Your task to perform on an android device: open wifi settings Image 0: 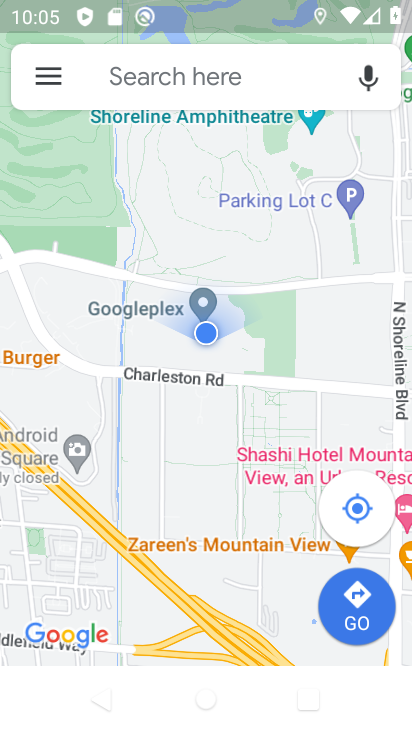
Step 0: press home button
Your task to perform on an android device: open wifi settings Image 1: 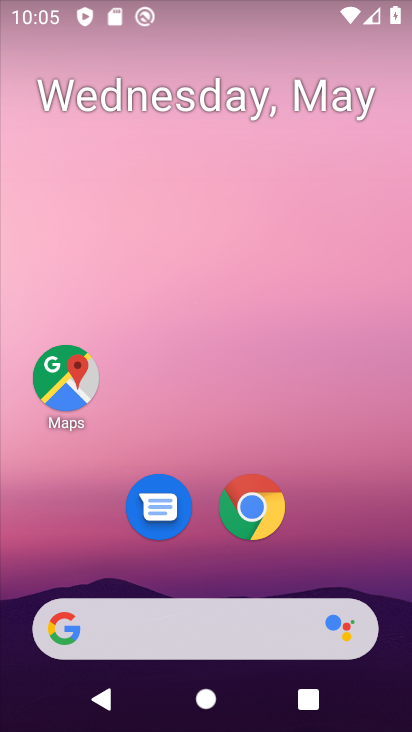
Step 1: drag from (208, 573) to (255, 59)
Your task to perform on an android device: open wifi settings Image 2: 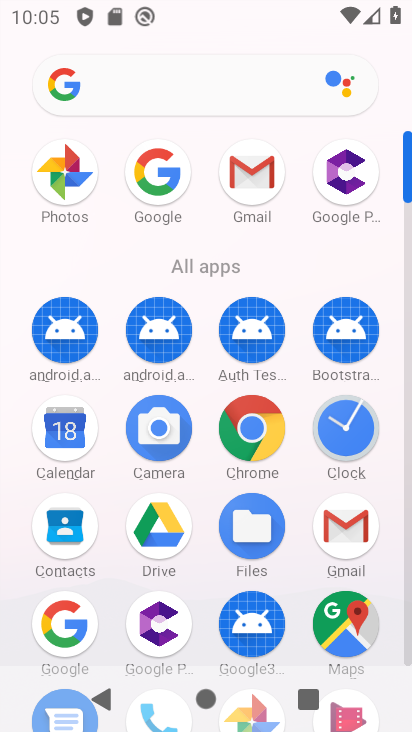
Step 2: drag from (203, 587) to (266, 56)
Your task to perform on an android device: open wifi settings Image 3: 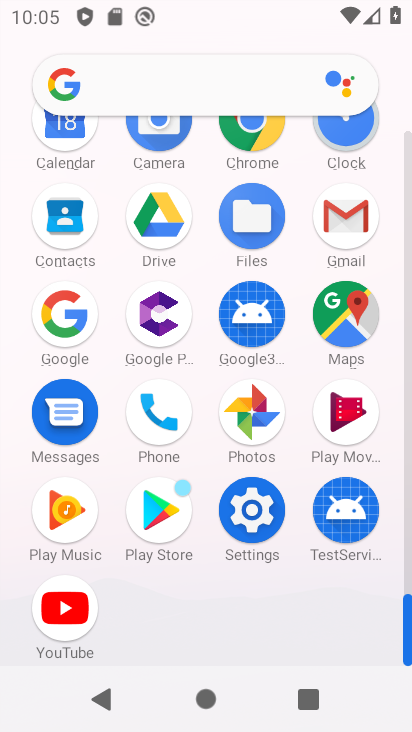
Step 3: click (253, 507)
Your task to perform on an android device: open wifi settings Image 4: 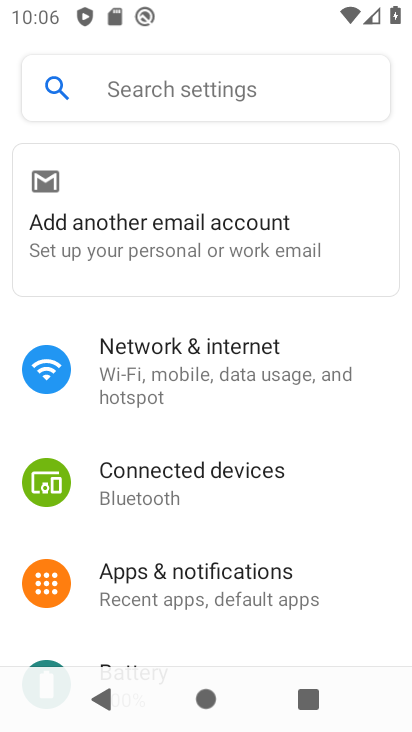
Step 4: click (196, 366)
Your task to perform on an android device: open wifi settings Image 5: 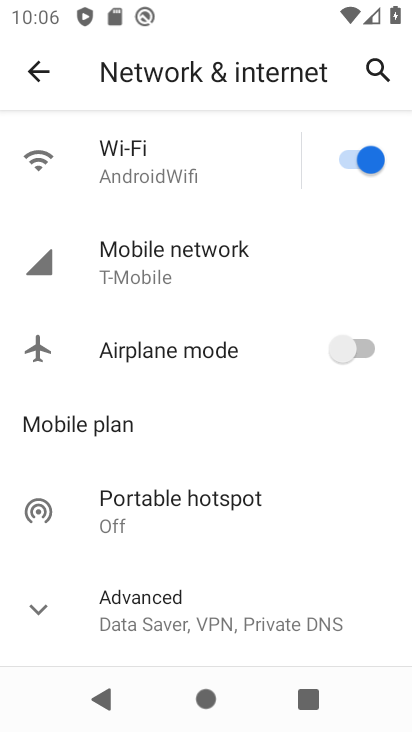
Step 5: click (214, 145)
Your task to perform on an android device: open wifi settings Image 6: 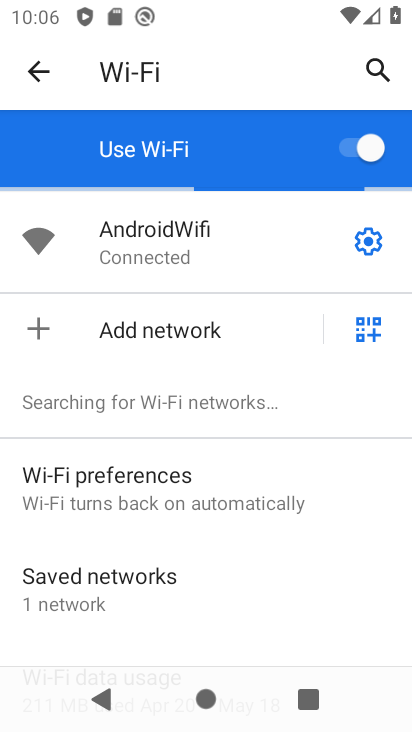
Step 6: task complete